Your task to perform on an android device: Open ESPN.com Image 0: 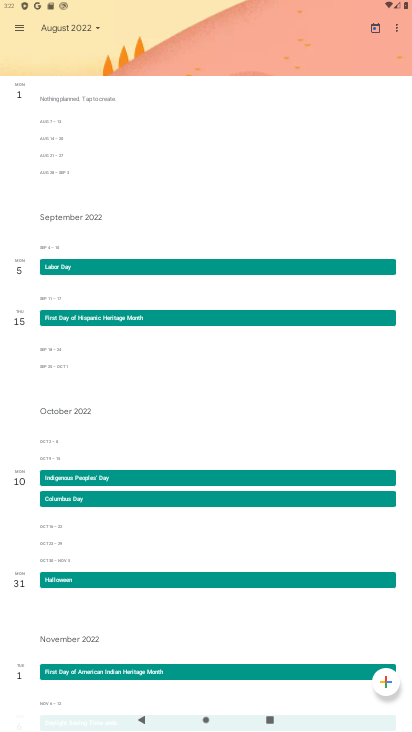
Step 0: press home button
Your task to perform on an android device: Open ESPN.com Image 1: 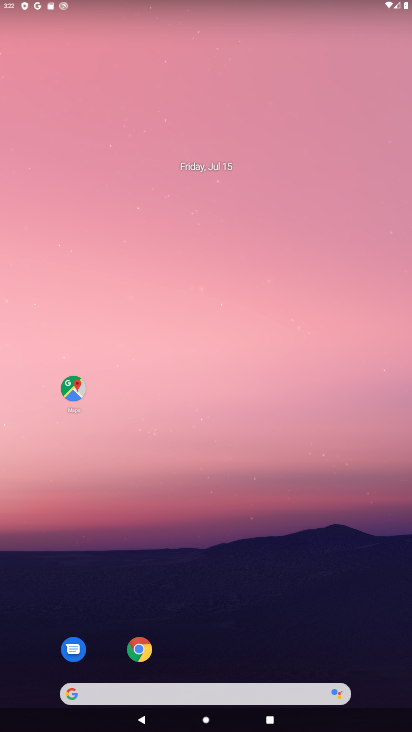
Step 1: click (141, 649)
Your task to perform on an android device: Open ESPN.com Image 2: 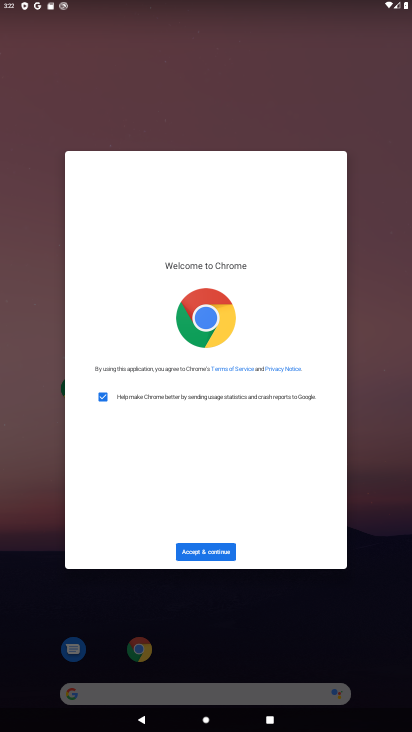
Step 2: click (220, 558)
Your task to perform on an android device: Open ESPN.com Image 3: 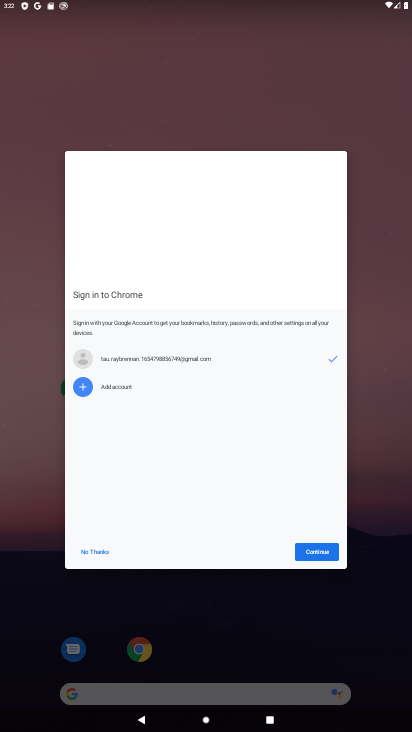
Step 3: click (310, 557)
Your task to perform on an android device: Open ESPN.com Image 4: 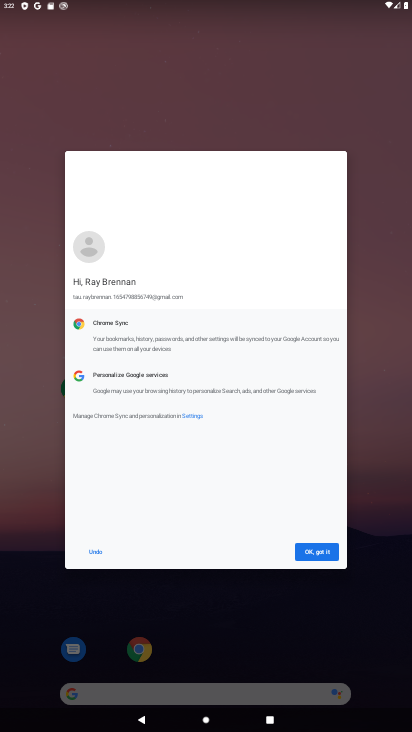
Step 4: click (310, 557)
Your task to perform on an android device: Open ESPN.com Image 5: 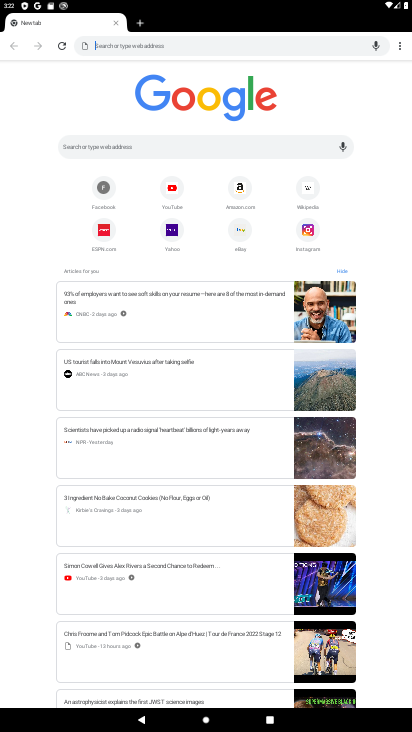
Step 5: click (134, 157)
Your task to perform on an android device: Open ESPN.com Image 6: 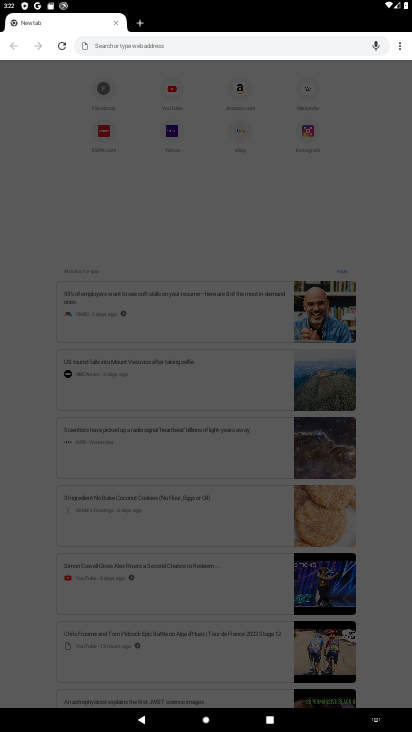
Step 6: type "ESPN.com"
Your task to perform on an android device: Open ESPN.com Image 7: 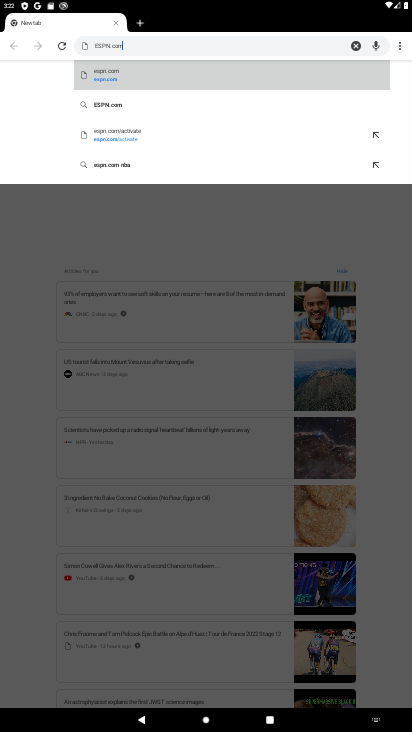
Step 7: click (113, 73)
Your task to perform on an android device: Open ESPN.com Image 8: 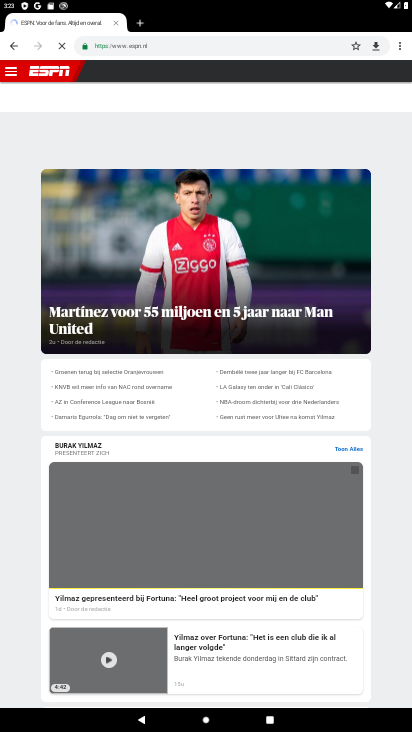
Step 8: task complete